Your task to perform on an android device: Open Maps and search for coffee Image 0: 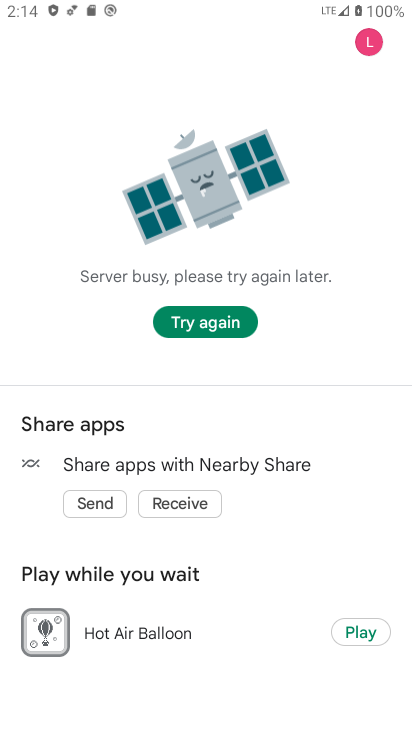
Step 0: press back button
Your task to perform on an android device: Open Maps and search for coffee Image 1: 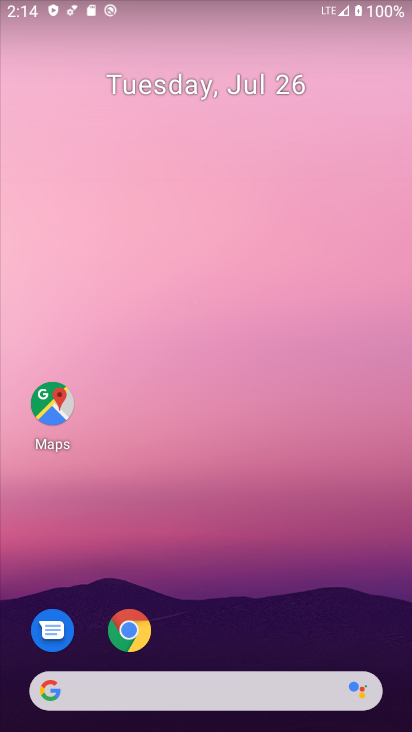
Step 1: drag from (275, 693) to (215, 80)
Your task to perform on an android device: Open Maps and search for coffee Image 2: 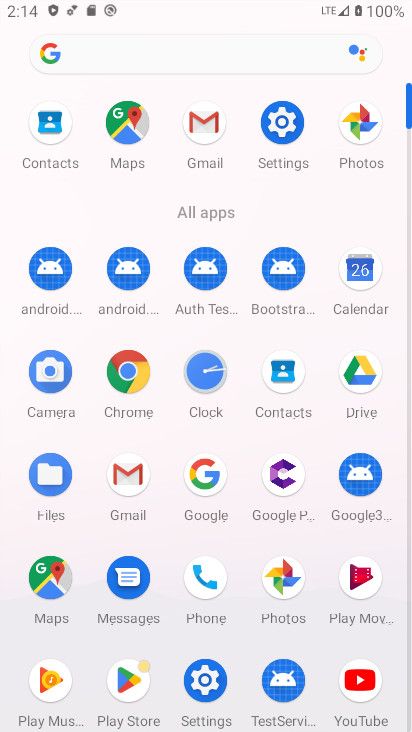
Step 2: click (45, 590)
Your task to perform on an android device: Open Maps and search for coffee Image 3: 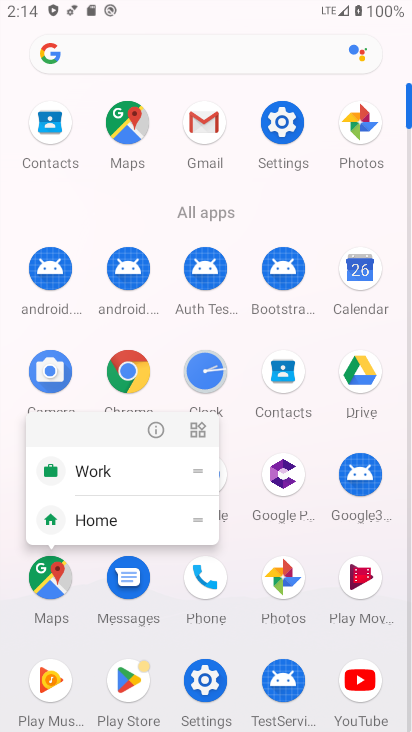
Step 3: click (53, 584)
Your task to perform on an android device: Open Maps and search for coffee Image 4: 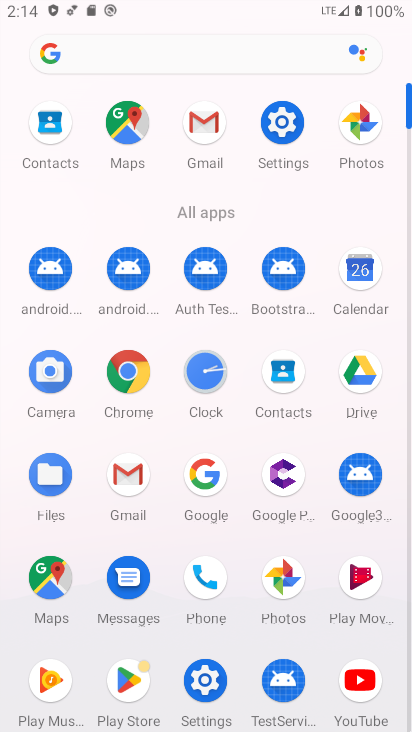
Step 4: click (56, 586)
Your task to perform on an android device: Open Maps and search for coffee Image 5: 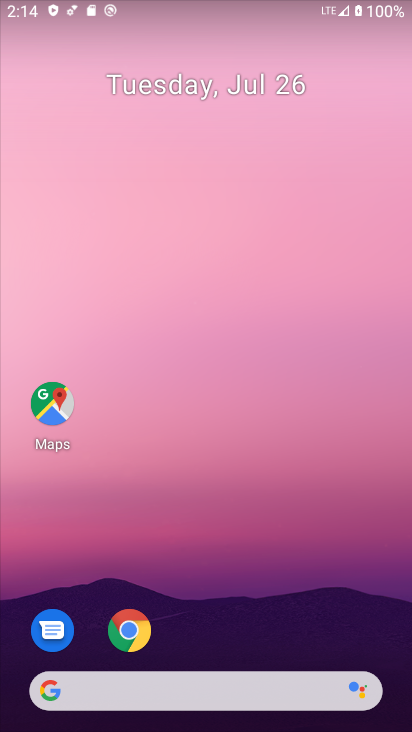
Step 5: click (57, 587)
Your task to perform on an android device: Open Maps and search for coffee Image 6: 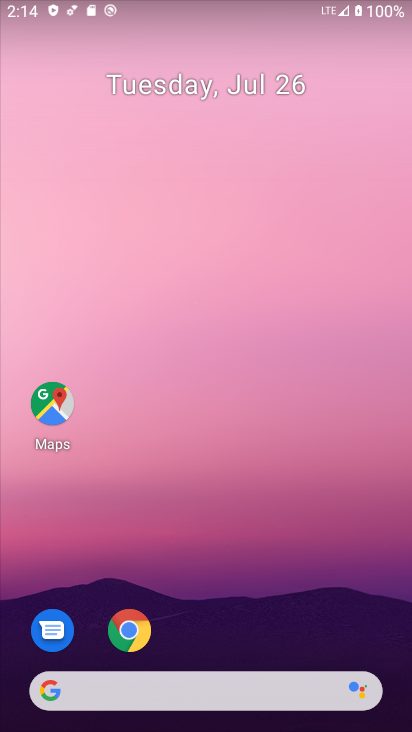
Step 6: click (57, 587)
Your task to perform on an android device: Open Maps and search for coffee Image 7: 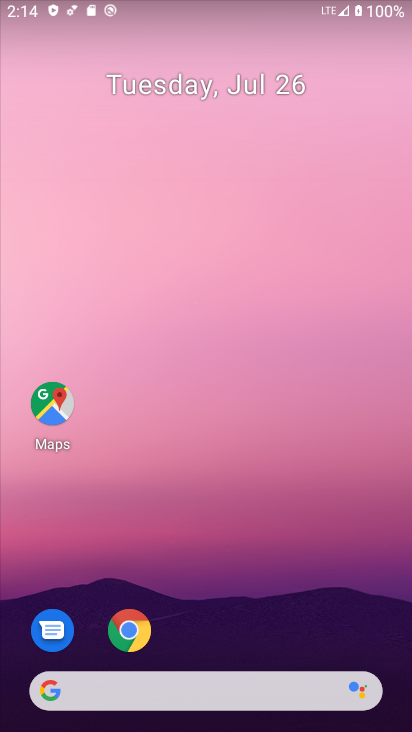
Step 7: drag from (207, 593) to (233, 316)
Your task to perform on an android device: Open Maps and search for coffee Image 8: 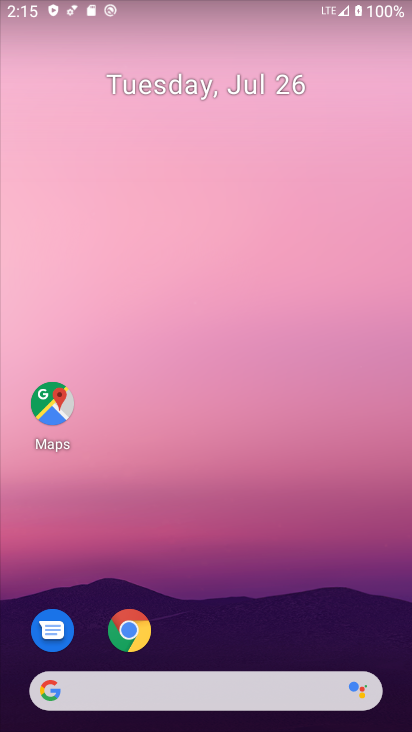
Step 8: drag from (155, 534) to (154, 174)
Your task to perform on an android device: Open Maps and search for coffee Image 9: 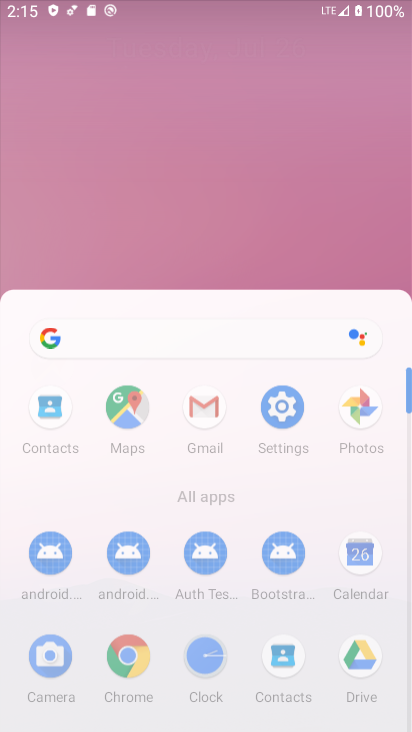
Step 9: drag from (189, 452) to (170, 311)
Your task to perform on an android device: Open Maps and search for coffee Image 10: 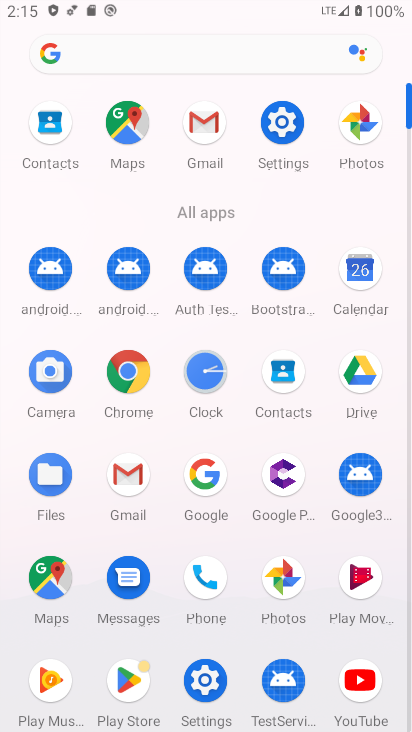
Step 10: click (48, 572)
Your task to perform on an android device: Open Maps and search for coffee Image 11: 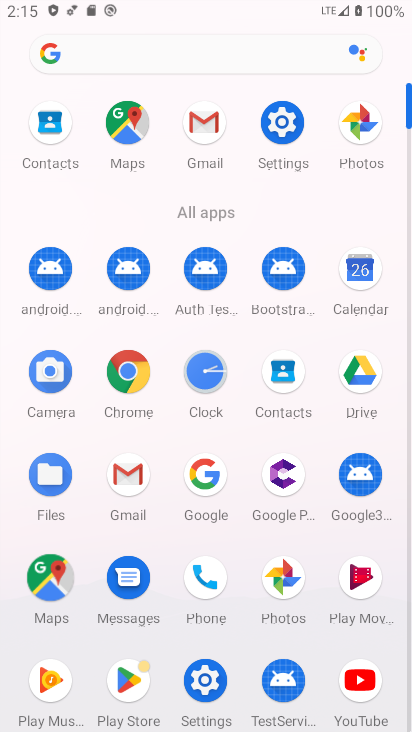
Step 11: click (48, 572)
Your task to perform on an android device: Open Maps and search for coffee Image 12: 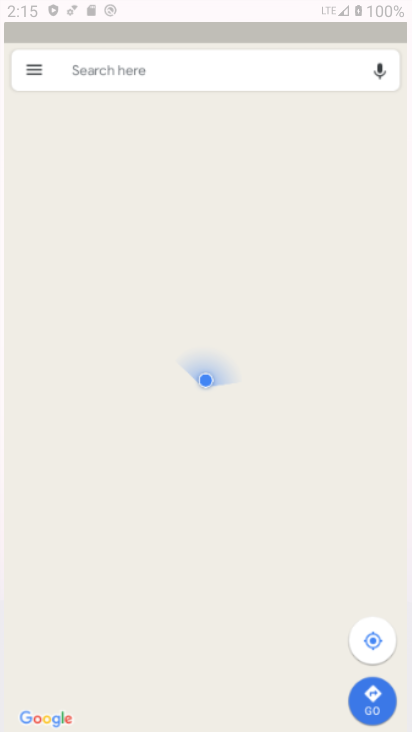
Step 12: click (48, 572)
Your task to perform on an android device: Open Maps and search for coffee Image 13: 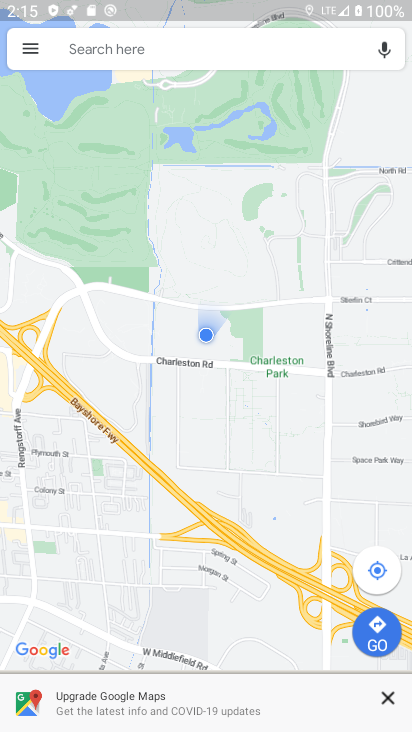
Step 13: task complete